Your task to perform on an android device: open sync settings in chrome Image 0: 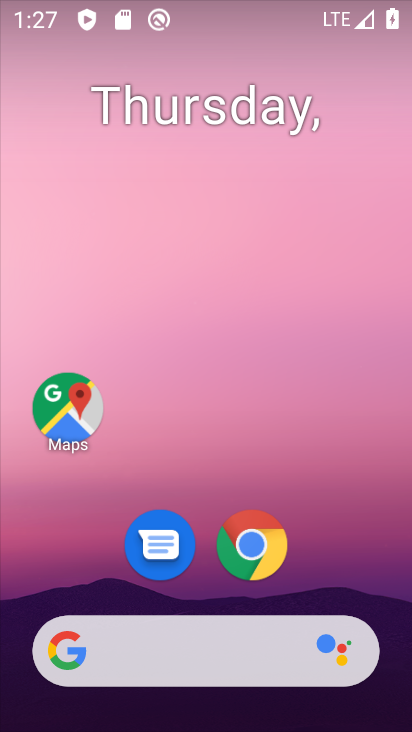
Step 0: click (264, 539)
Your task to perform on an android device: open sync settings in chrome Image 1: 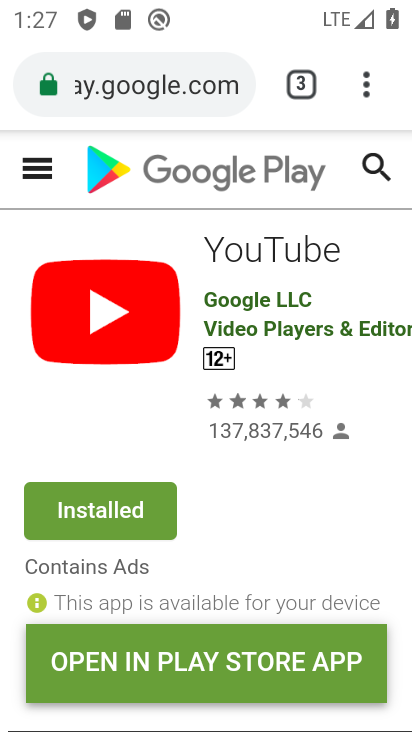
Step 1: click (379, 85)
Your task to perform on an android device: open sync settings in chrome Image 2: 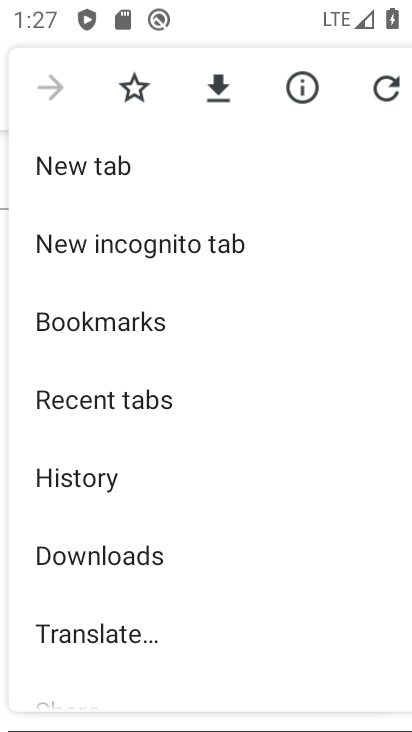
Step 2: drag from (180, 635) to (185, 50)
Your task to perform on an android device: open sync settings in chrome Image 3: 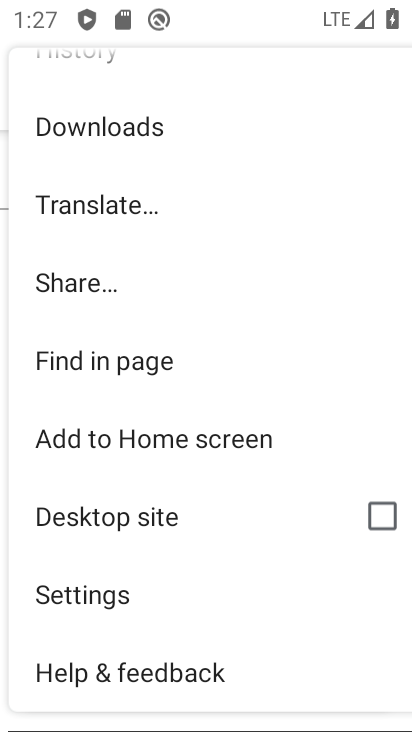
Step 3: click (107, 606)
Your task to perform on an android device: open sync settings in chrome Image 4: 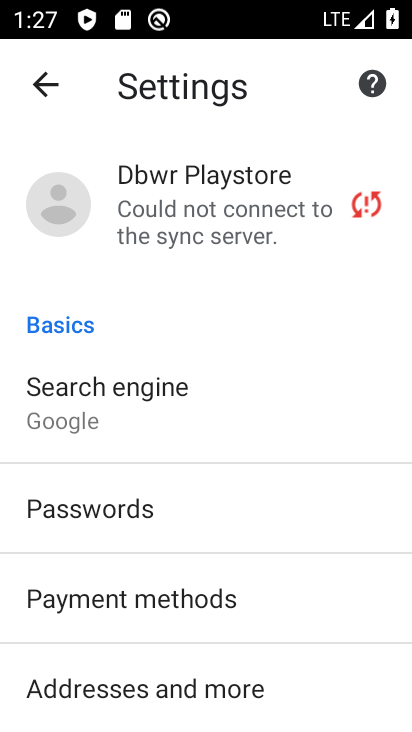
Step 4: click (219, 236)
Your task to perform on an android device: open sync settings in chrome Image 5: 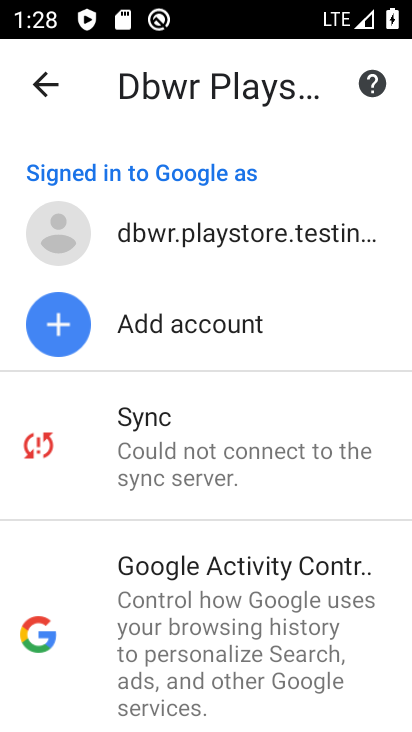
Step 5: task complete